Your task to perform on an android device: Open CNN.com Image 0: 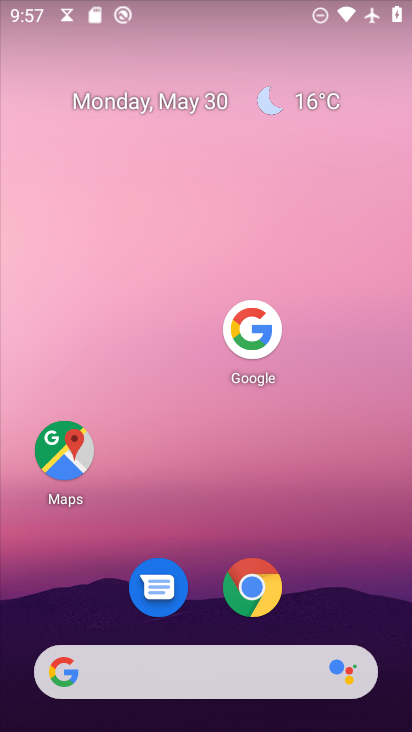
Step 0: click (250, 592)
Your task to perform on an android device: Open CNN.com Image 1: 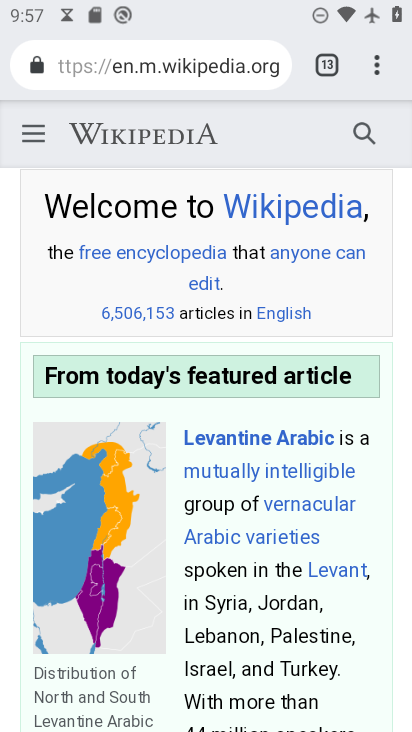
Step 1: drag from (379, 68) to (184, 122)
Your task to perform on an android device: Open CNN.com Image 2: 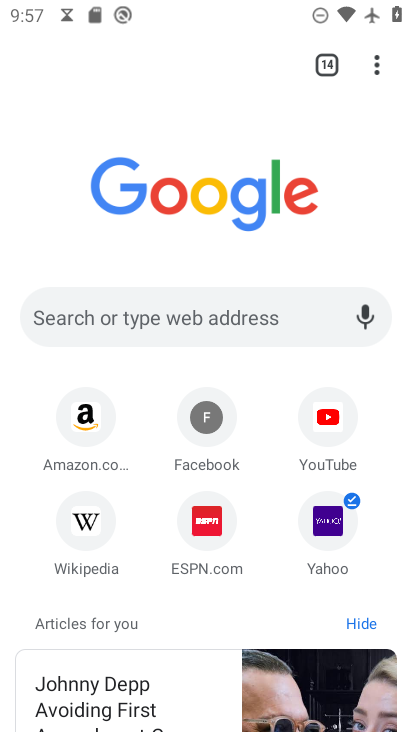
Step 2: click (135, 297)
Your task to perform on an android device: Open CNN.com Image 3: 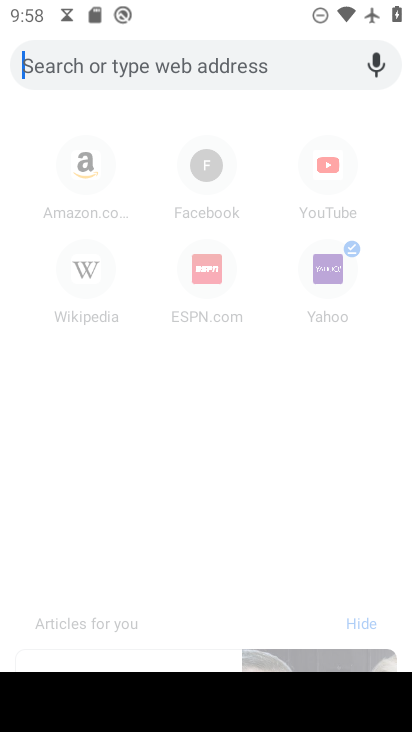
Step 3: type "cnn.com"
Your task to perform on an android device: Open CNN.com Image 4: 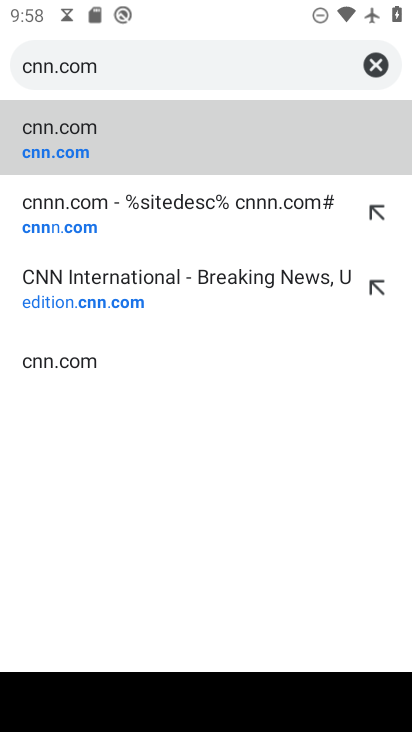
Step 4: click (77, 153)
Your task to perform on an android device: Open CNN.com Image 5: 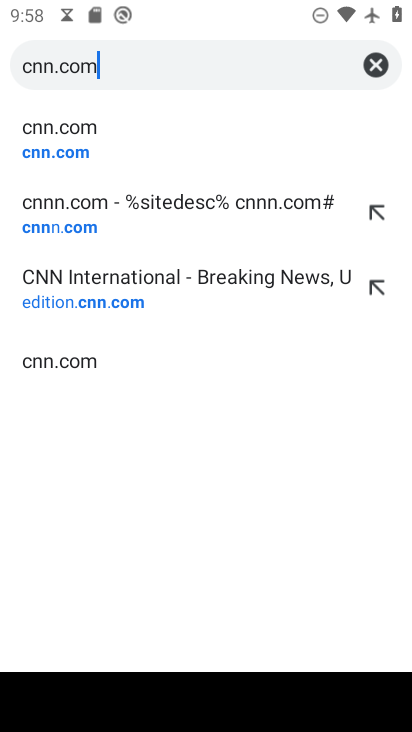
Step 5: click (71, 140)
Your task to perform on an android device: Open CNN.com Image 6: 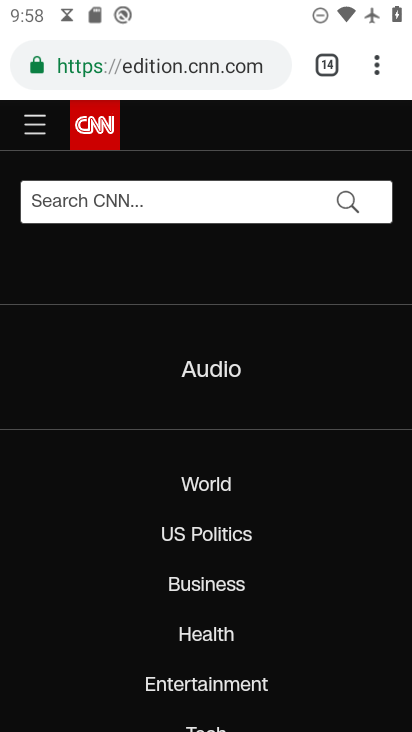
Step 6: task complete